Your task to perform on an android device: refresh tabs in the chrome app Image 0: 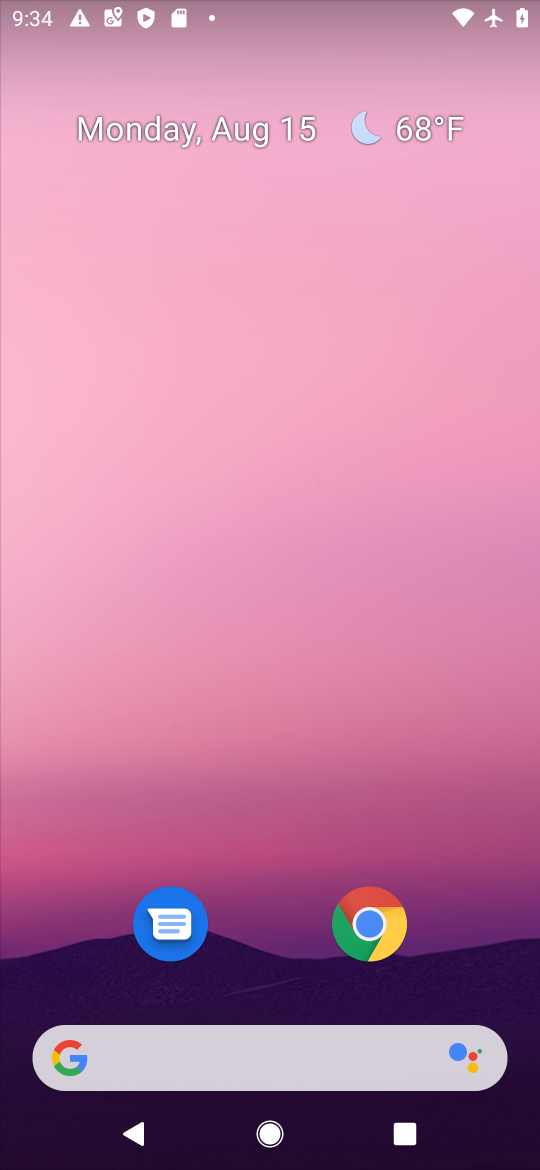
Step 0: click (369, 926)
Your task to perform on an android device: refresh tabs in the chrome app Image 1: 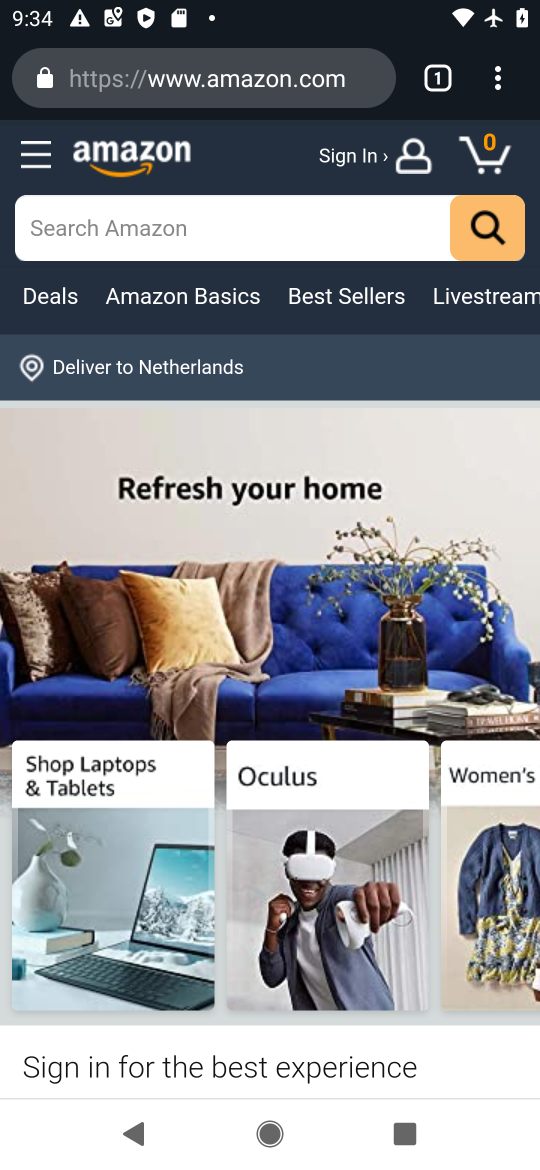
Step 1: click (492, 91)
Your task to perform on an android device: refresh tabs in the chrome app Image 2: 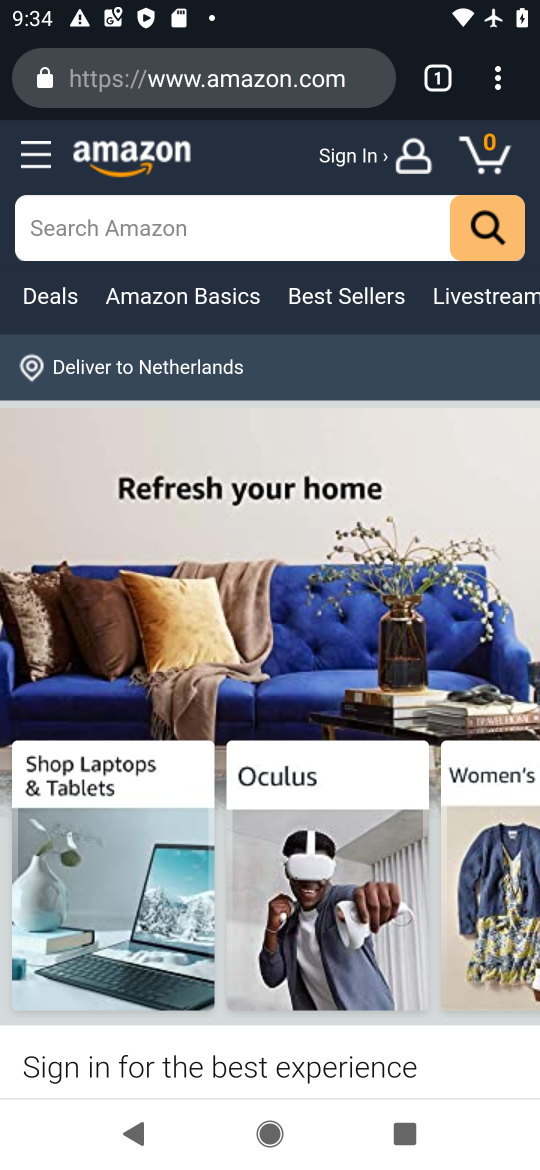
Step 2: click (492, 95)
Your task to perform on an android device: refresh tabs in the chrome app Image 3: 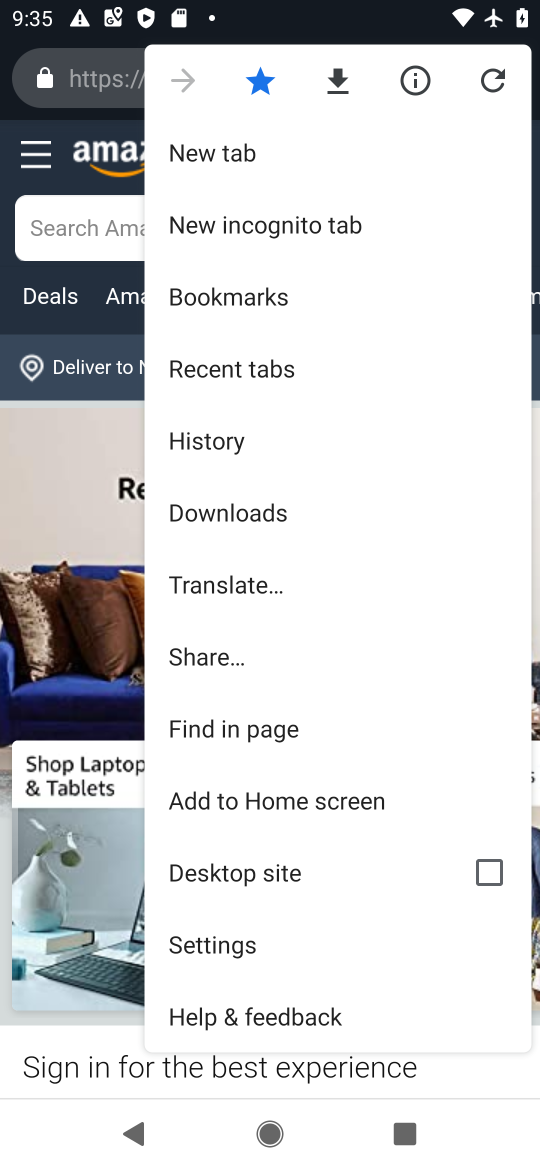
Step 3: click (497, 78)
Your task to perform on an android device: refresh tabs in the chrome app Image 4: 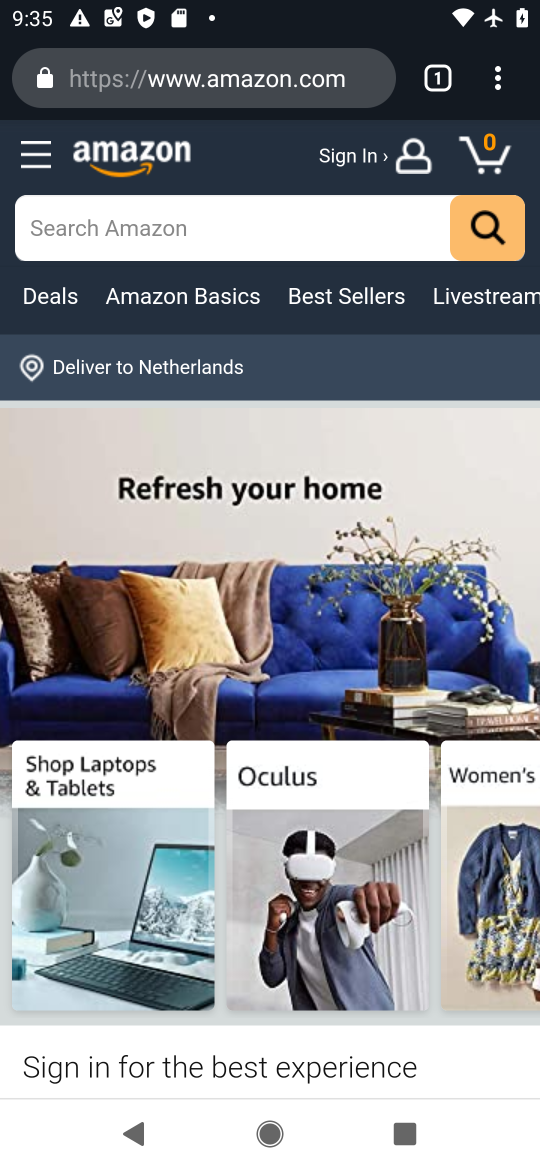
Step 4: task complete